Your task to perform on an android device: turn on showing notifications on the lock screen Image 0: 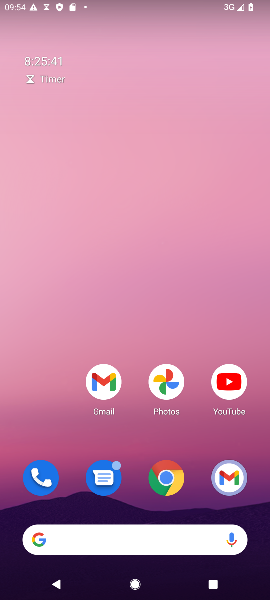
Step 0: drag from (190, 366) to (157, 3)
Your task to perform on an android device: turn on showing notifications on the lock screen Image 1: 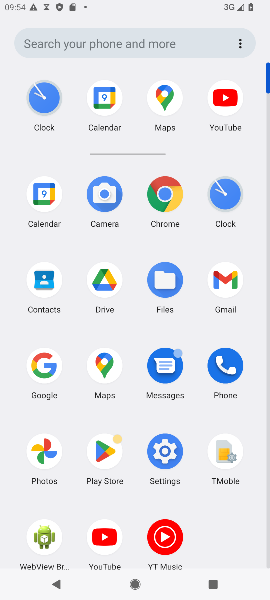
Step 1: click (170, 453)
Your task to perform on an android device: turn on showing notifications on the lock screen Image 2: 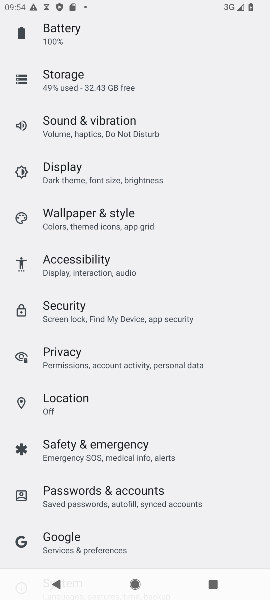
Step 2: drag from (137, 50) to (206, 518)
Your task to perform on an android device: turn on showing notifications on the lock screen Image 3: 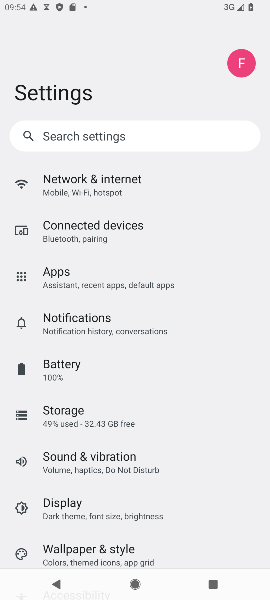
Step 3: click (124, 323)
Your task to perform on an android device: turn on showing notifications on the lock screen Image 4: 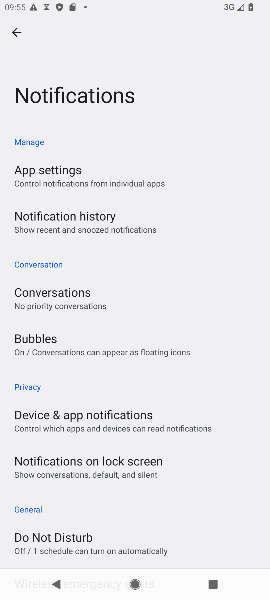
Step 4: click (154, 480)
Your task to perform on an android device: turn on showing notifications on the lock screen Image 5: 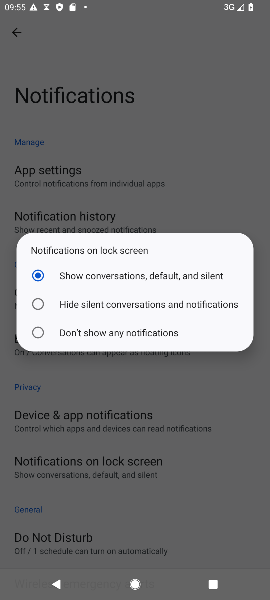
Step 5: task complete